Your task to perform on an android device: Open notification settings Image 0: 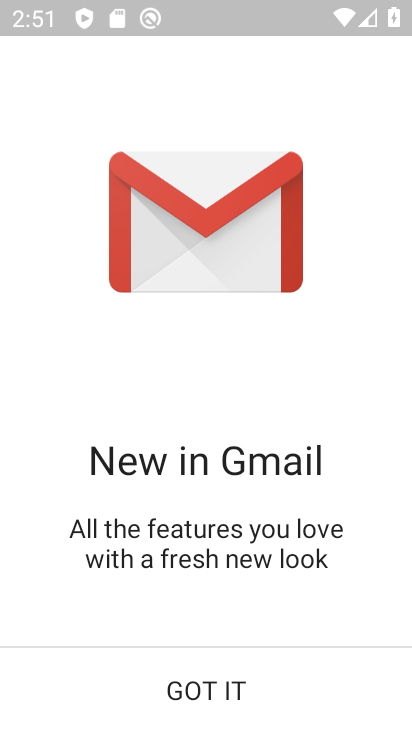
Step 0: press home button
Your task to perform on an android device: Open notification settings Image 1: 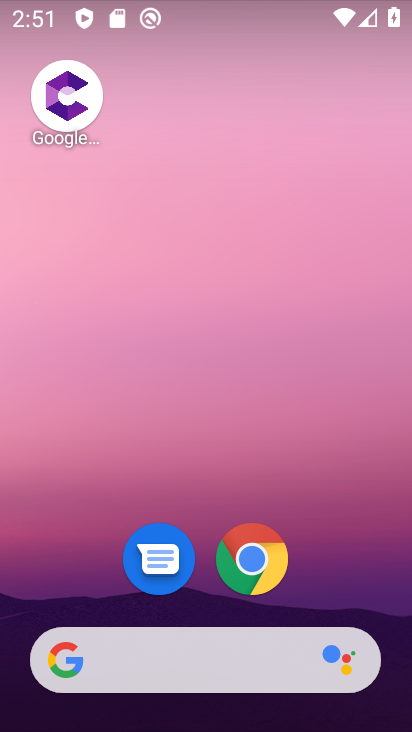
Step 1: drag from (214, 610) to (201, 167)
Your task to perform on an android device: Open notification settings Image 2: 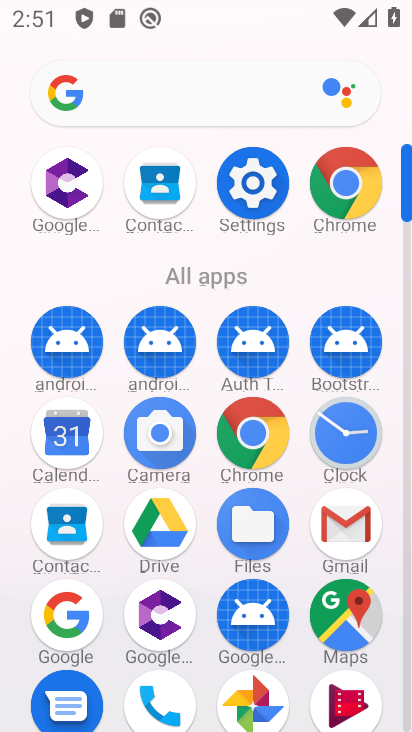
Step 2: click (234, 189)
Your task to perform on an android device: Open notification settings Image 3: 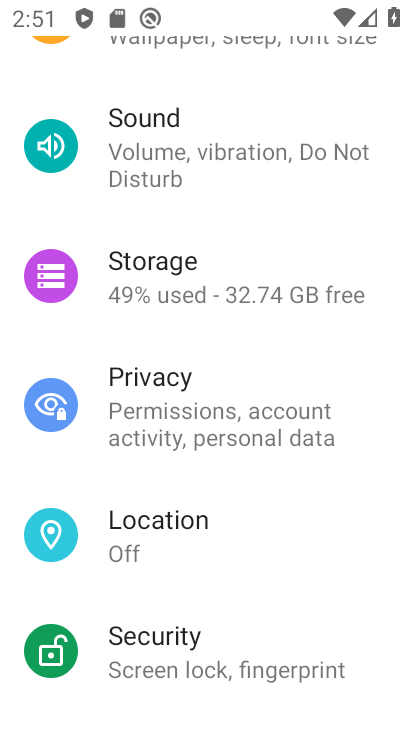
Step 3: drag from (181, 220) to (193, 592)
Your task to perform on an android device: Open notification settings Image 4: 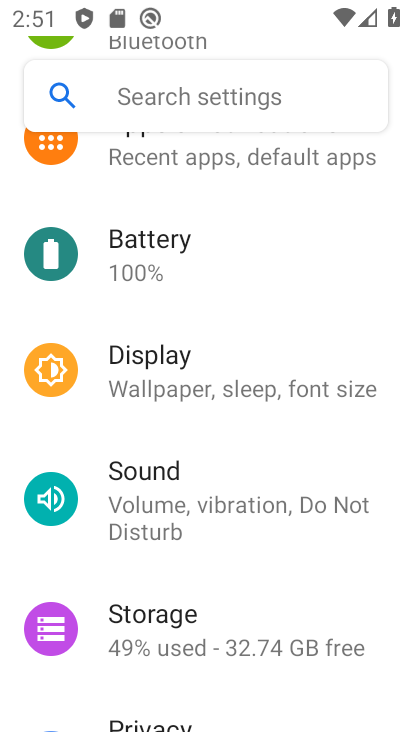
Step 4: drag from (183, 289) to (177, 579)
Your task to perform on an android device: Open notification settings Image 5: 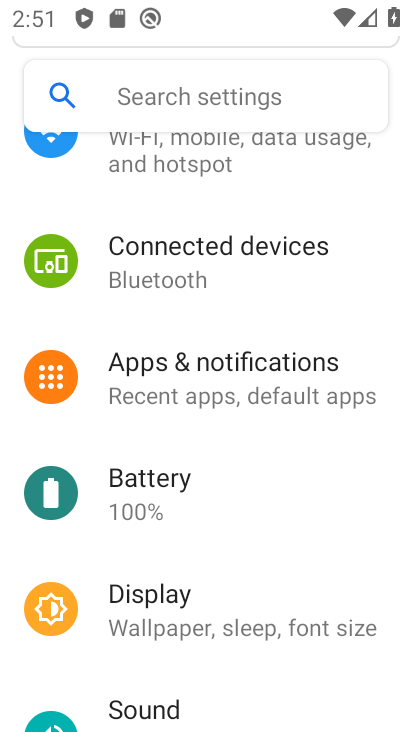
Step 5: drag from (146, 220) to (146, 528)
Your task to perform on an android device: Open notification settings Image 6: 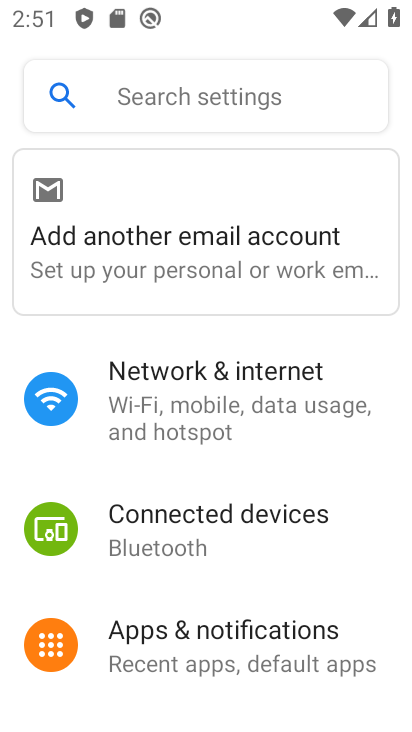
Step 6: click (182, 643)
Your task to perform on an android device: Open notification settings Image 7: 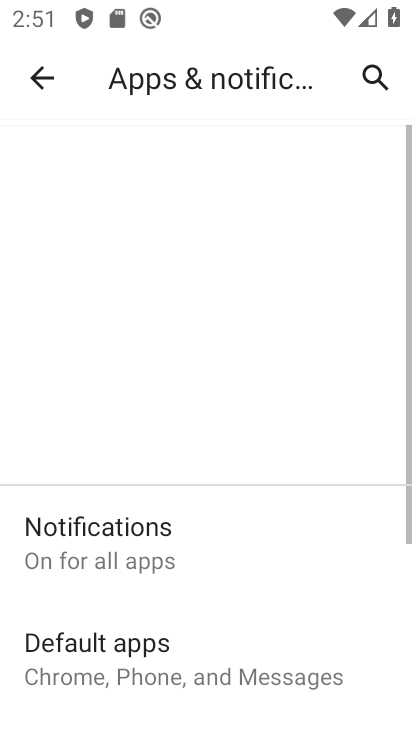
Step 7: click (156, 548)
Your task to perform on an android device: Open notification settings Image 8: 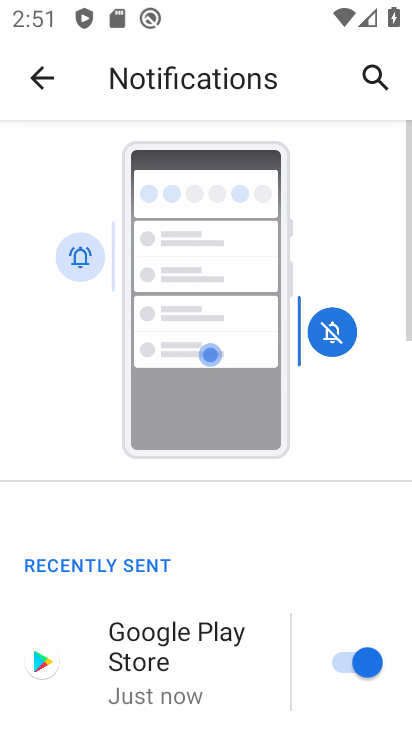
Step 8: task complete